Your task to perform on an android device: turn off smart reply in the gmail app Image 0: 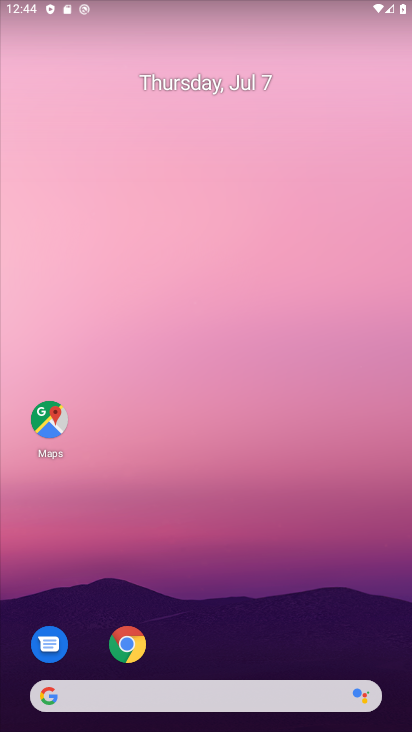
Step 0: drag from (258, 665) to (214, 198)
Your task to perform on an android device: turn off smart reply in the gmail app Image 1: 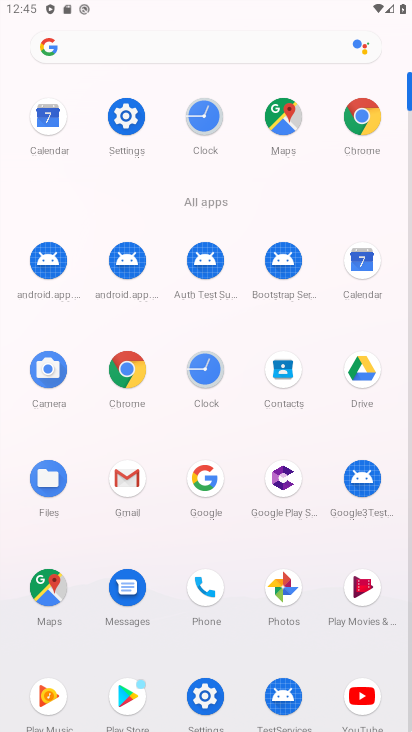
Step 1: click (137, 485)
Your task to perform on an android device: turn off smart reply in the gmail app Image 2: 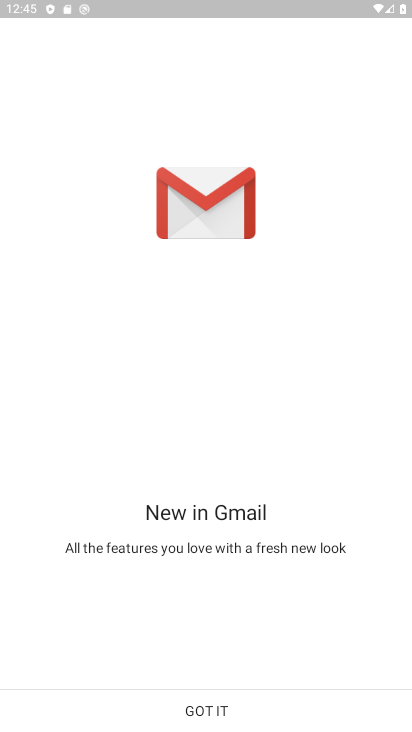
Step 2: click (213, 701)
Your task to perform on an android device: turn off smart reply in the gmail app Image 3: 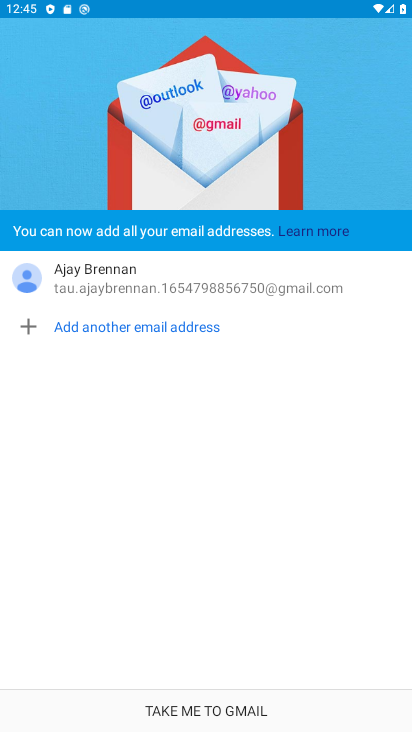
Step 3: click (220, 711)
Your task to perform on an android device: turn off smart reply in the gmail app Image 4: 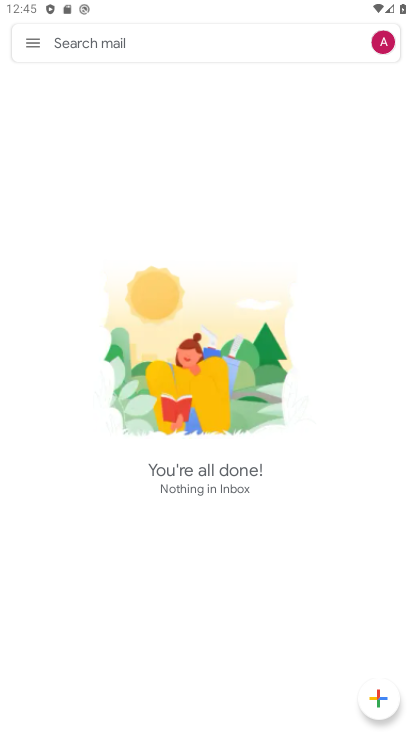
Step 4: click (33, 44)
Your task to perform on an android device: turn off smart reply in the gmail app Image 5: 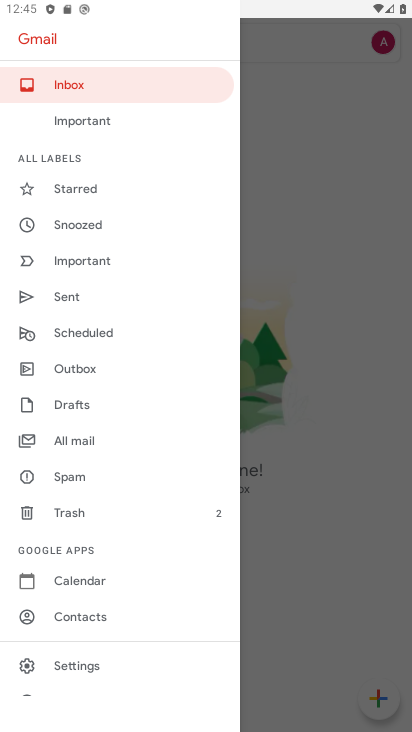
Step 5: click (110, 663)
Your task to perform on an android device: turn off smart reply in the gmail app Image 6: 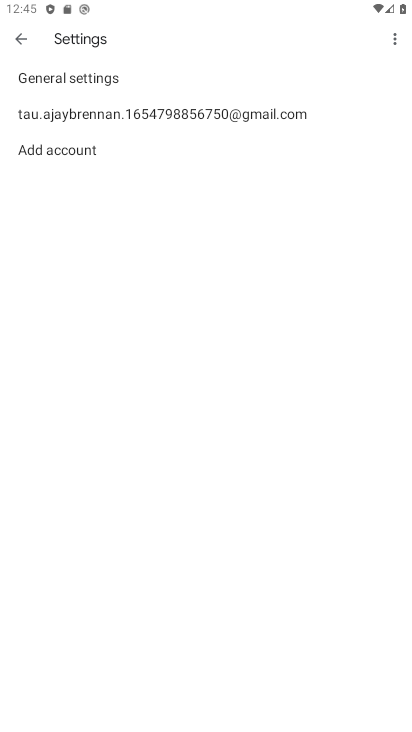
Step 6: click (225, 120)
Your task to perform on an android device: turn off smart reply in the gmail app Image 7: 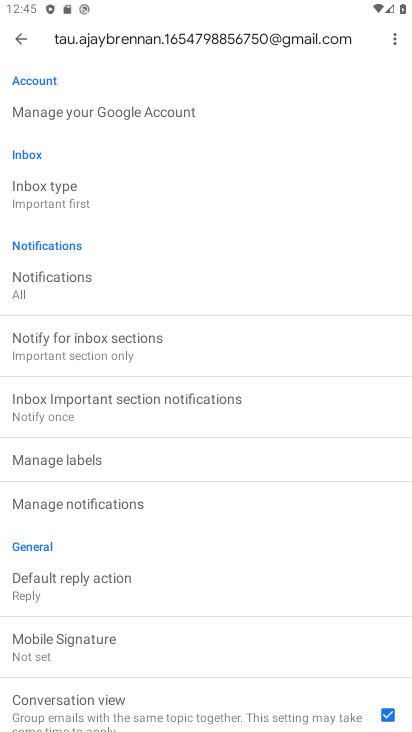
Step 7: drag from (179, 633) to (137, 320)
Your task to perform on an android device: turn off smart reply in the gmail app Image 8: 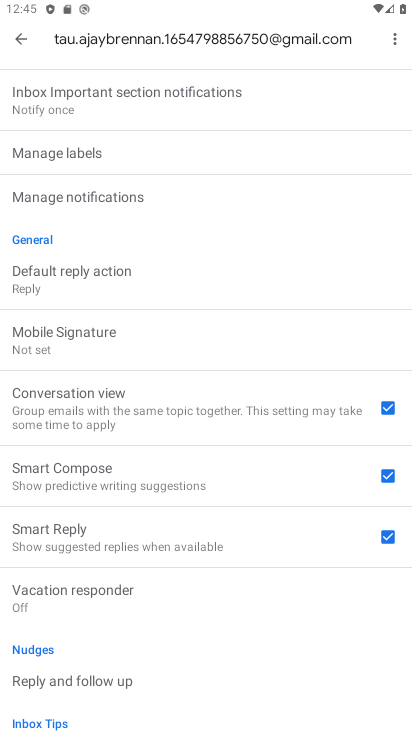
Step 8: click (379, 541)
Your task to perform on an android device: turn off smart reply in the gmail app Image 9: 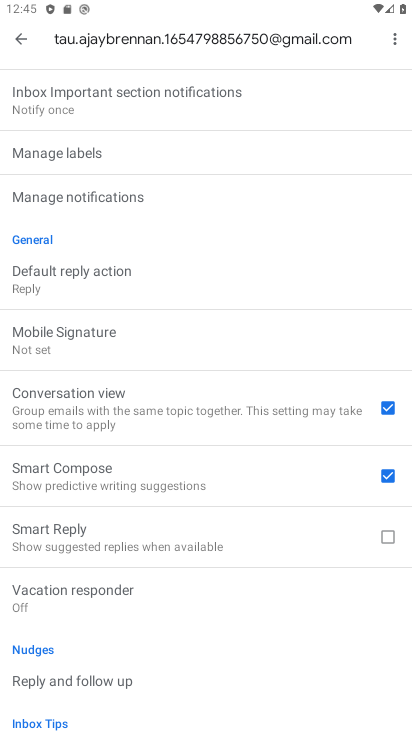
Step 9: task complete